Your task to perform on an android device: Check the news Image 0: 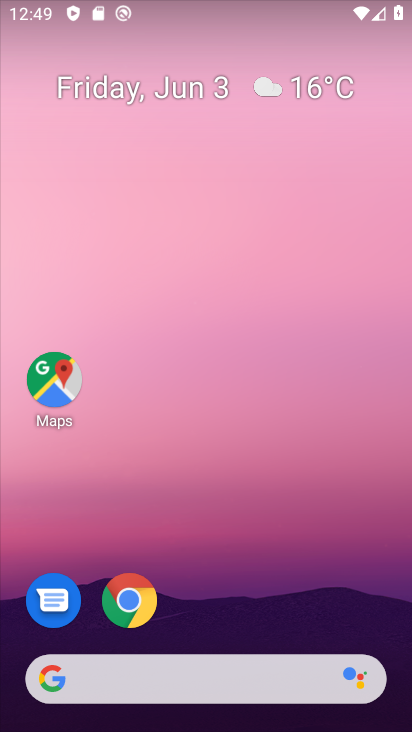
Step 0: drag from (209, 464) to (144, 18)
Your task to perform on an android device: Check the news Image 1: 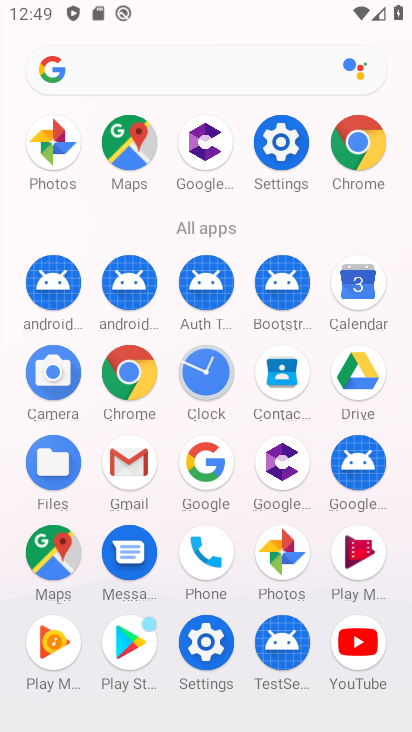
Step 1: drag from (8, 303) to (128, 366)
Your task to perform on an android device: Check the news Image 2: 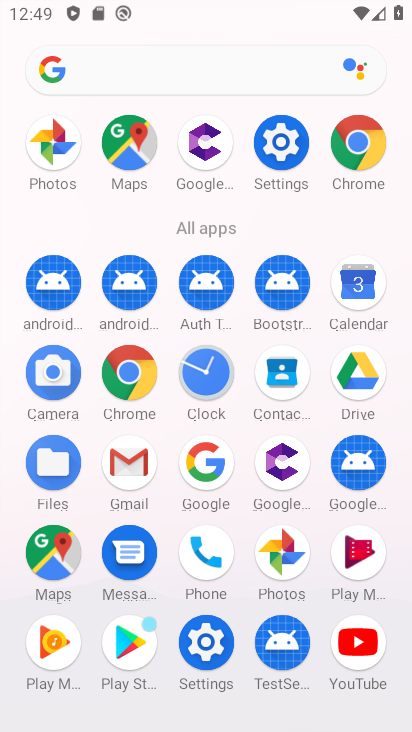
Step 2: click (130, 366)
Your task to perform on an android device: Check the news Image 3: 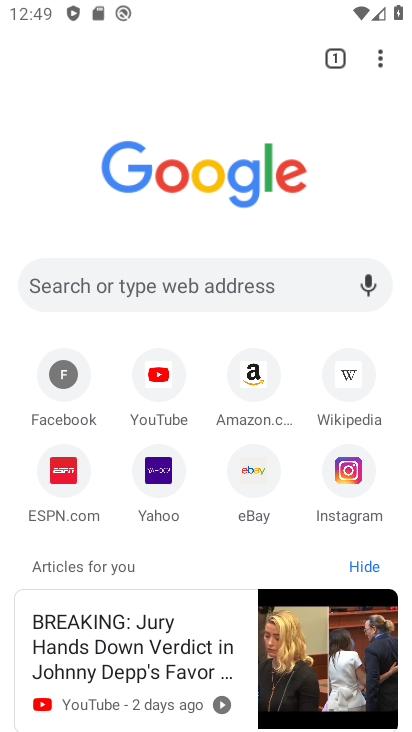
Step 3: click (87, 279)
Your task to perform on an android device: Check the news Image 4: 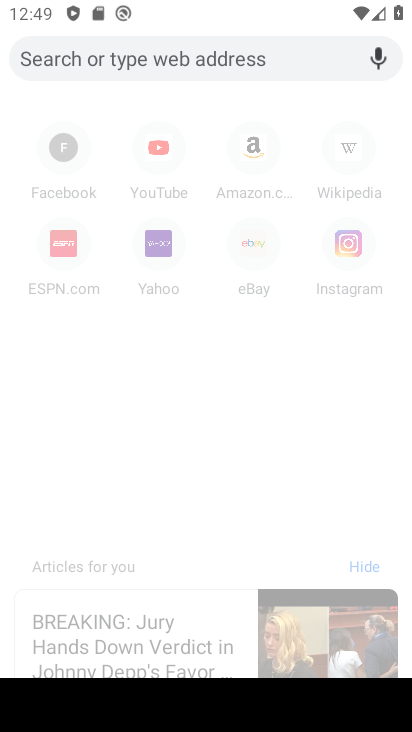
Step 4: click (85, 289)
Your task to perform on an android device: Check the news Image 5: 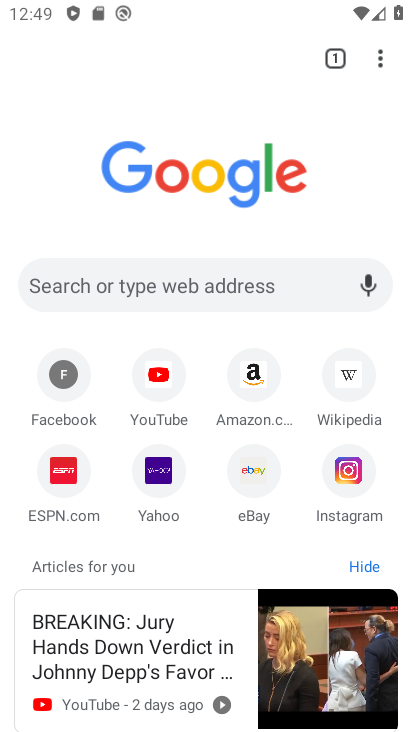
Step 5: type "Check the news"
Your task to perform on an android device: Check the news Image 6: 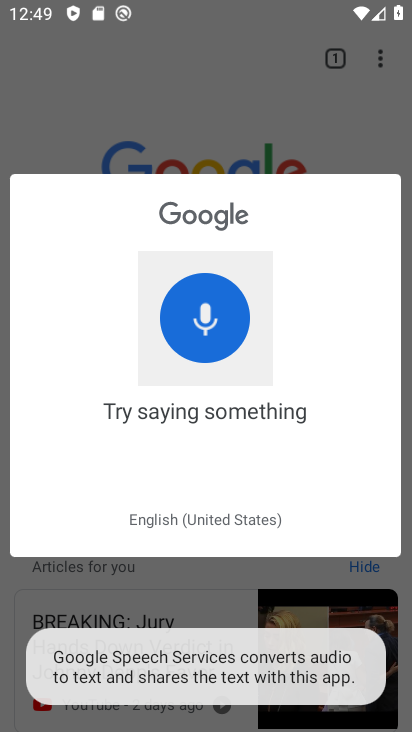
Step 6: type ""
Your task to perform on an android device: Check the news Image 7: 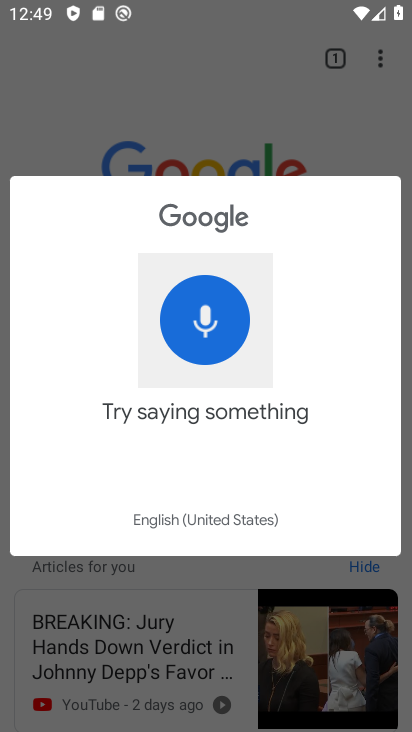
Step 7: click (71, 116)
Your task to perform on an android device: Check the news Image 8: 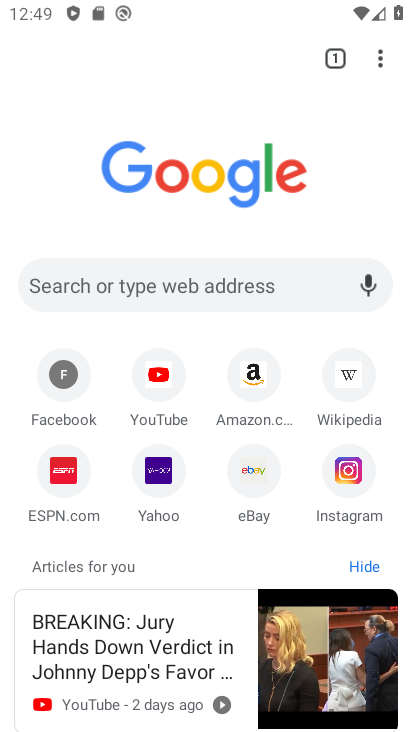
Step 8: click (72, 270)
Your task to perform on an android device: Check the news Image 9: 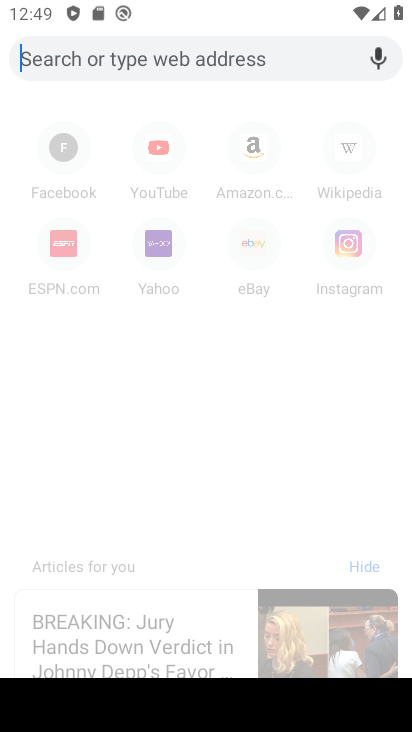
Step 9: type "Check the news"
Your task to perform on an android device: Check the news Image 10: 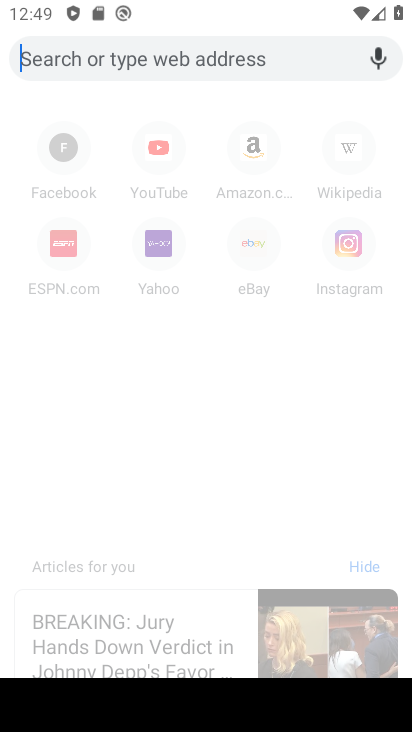
Step 10: click (165, 51)
Your task to perform on an android device: Check the news Image 11: 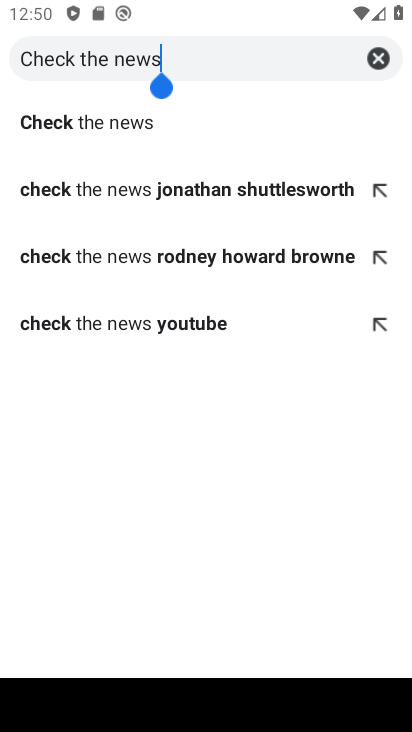
Step 11: click (77, 121)
Your task to perform on an android device: Check the news Image 12: 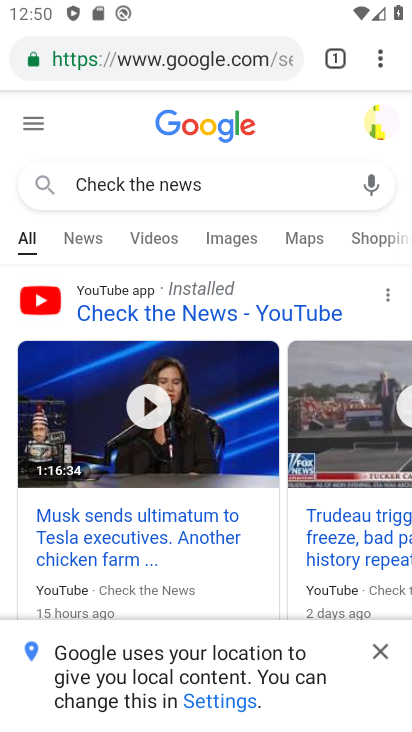
Step 12: task complete